Your task to perform on an android device: Open sound settings Image 0: 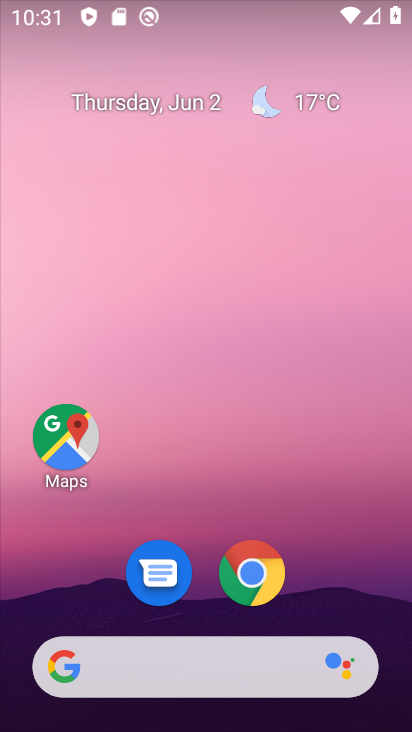
Step 0: task complete